Your task to perform on an android device: Show me a list of home improvement items on the Home Depot website. Image 0: 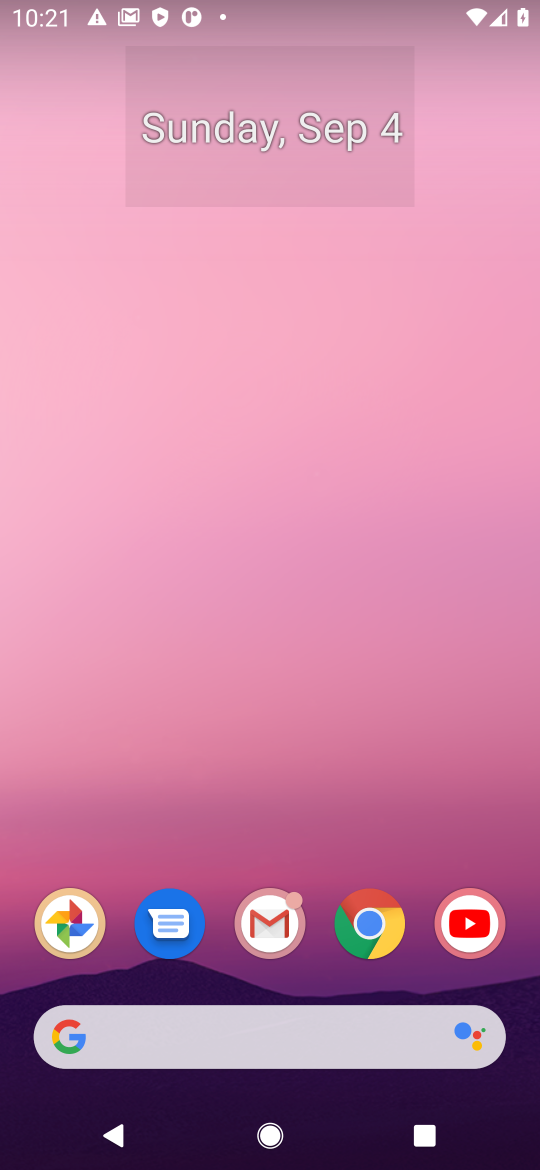
Step 0: click (376, 1034)
Your task to perform on an android device: Show me a list of home improvement items on the Home Depot website. Image 1: 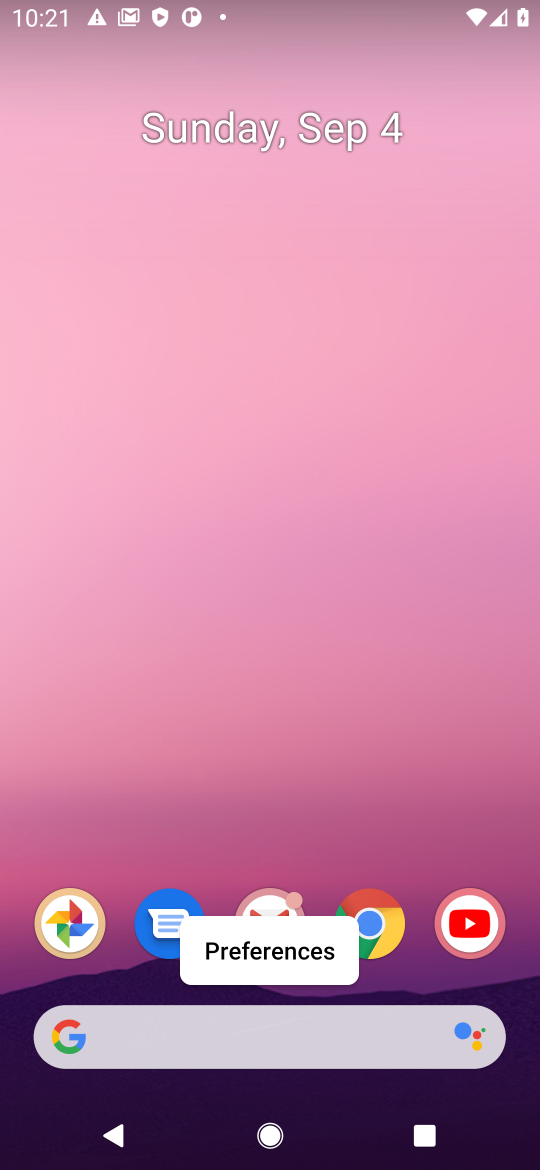
Step 1: click (249, 1040)
Your task to perform on an android device: Show me a list of home improvement items on the Home Depot website. Image 2: 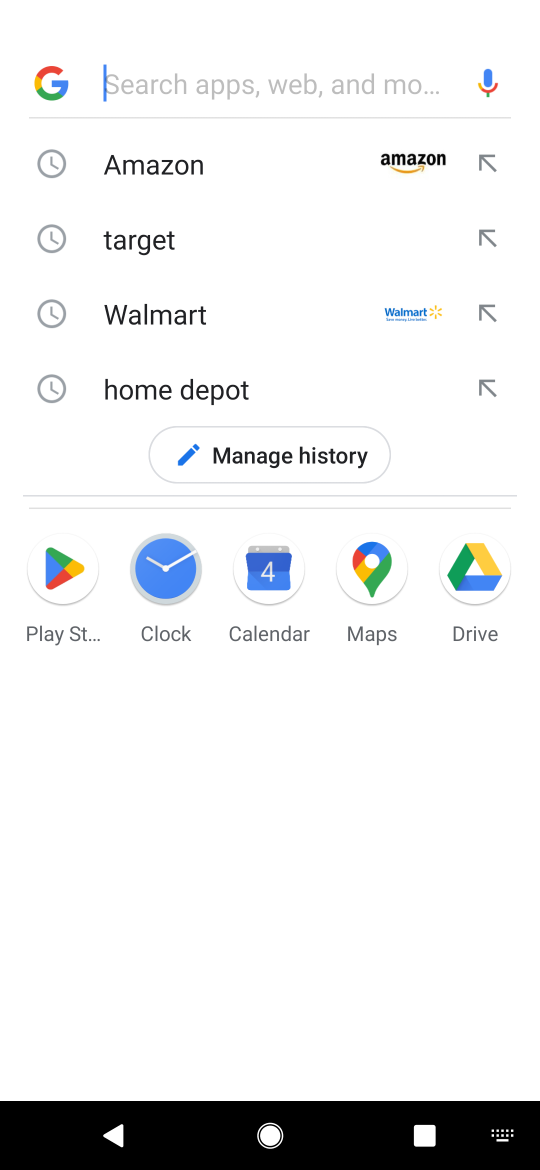
Step 2: type "home depot "
Your task to perform on an android device: Show me a list of home improvement items on the Home Depot website. Image 3: 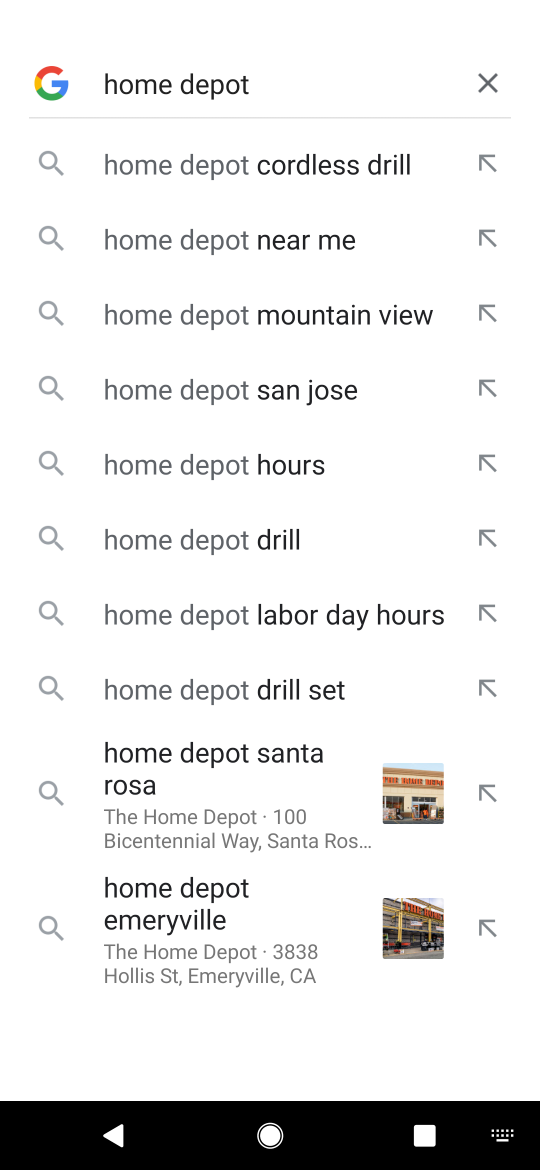
Step 3: press enter
Your task to perform on an android device: Show me a list of home improvement items on the Home Depot website. Image 4: 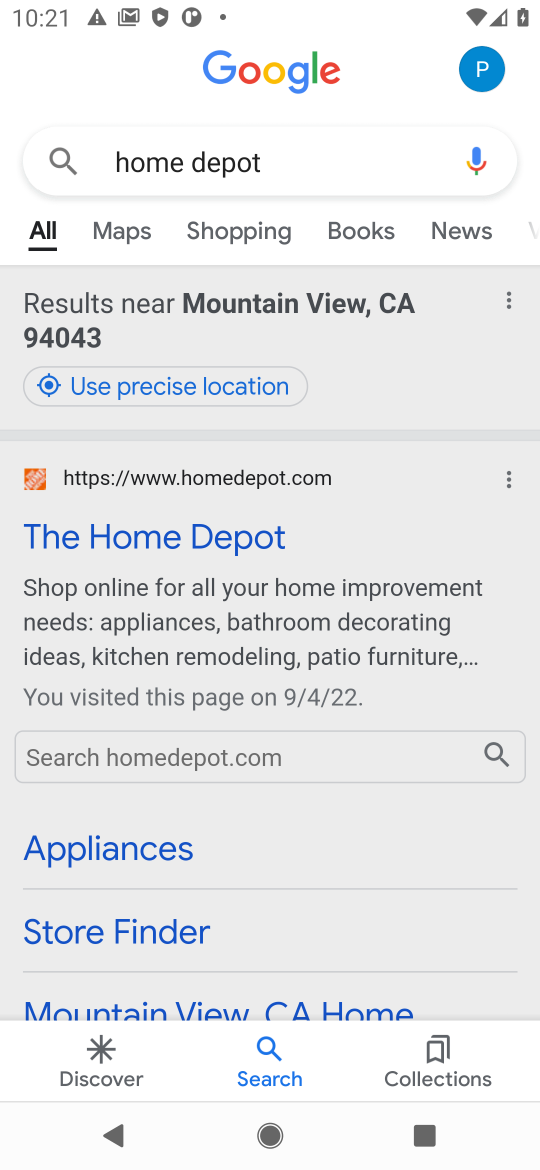
Step 4: click (196, 531)
Your task to perform on an android device: Show me a list of home improvement items on the Home Depot website. Image 5: 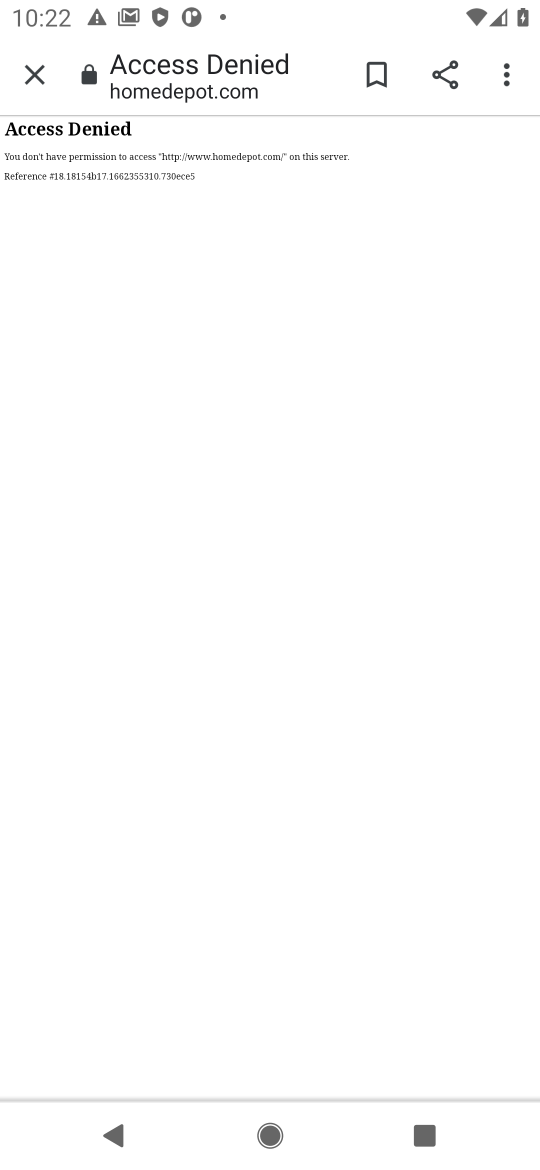
Step 5: task complete